Your task to perform on an android device: change notification settings in the gmail app Image 0: 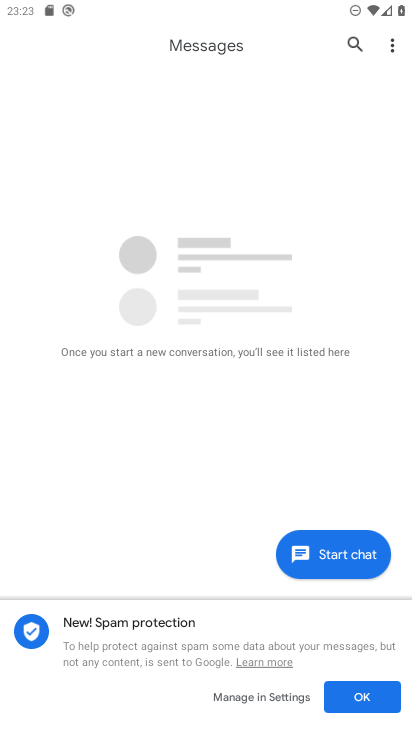
Step 0: press home button
Your task to perform on an android device: change notification settings in the gmail app Image 1: 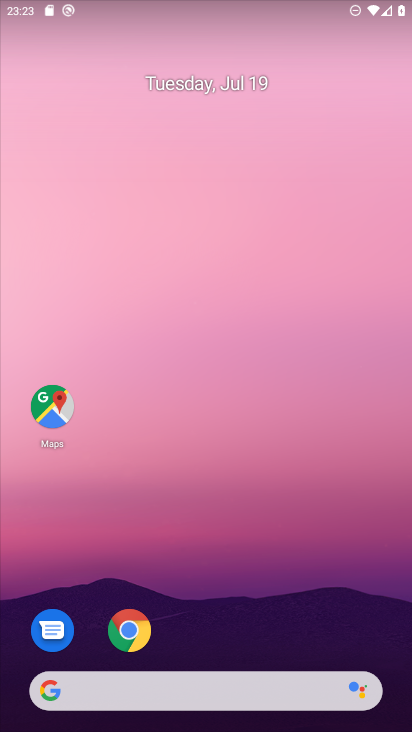
Step 1: drag from (203, 633) to (203, 213)
Your task to perform on an android device: change notification settings in the gmail app Image 2: 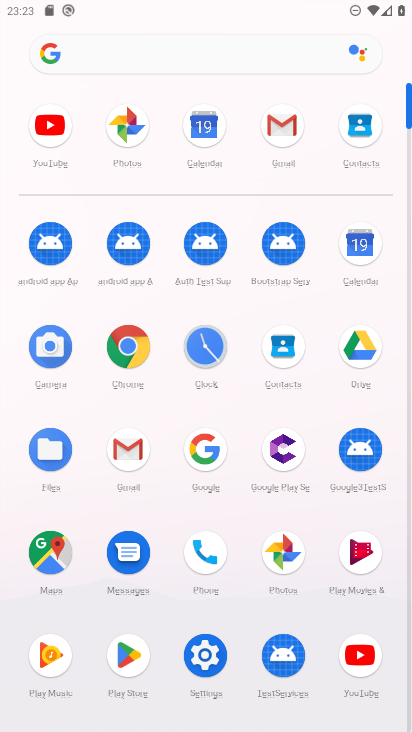
Step 2: click (270, 135)
Your task to perform on an android device: change notification settings in the gmail app Image 3: 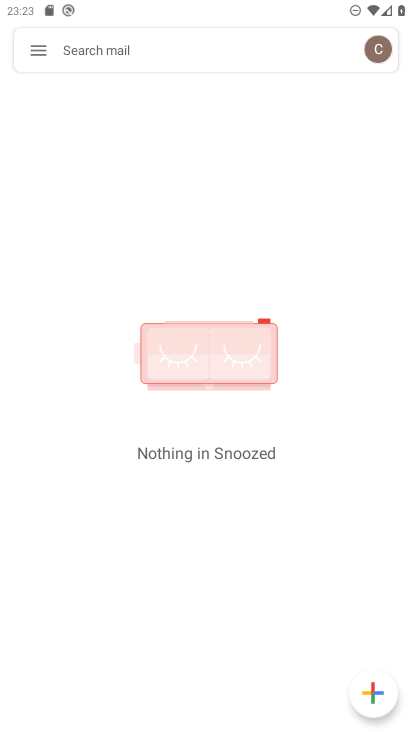
Step 3: click (45, 54)
Your task to perform on an android device: change notification settings in the gmail app Image 4: 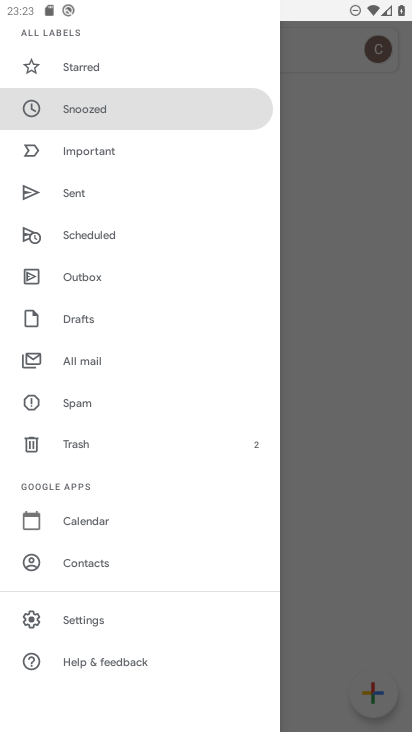
Step 4: click (113, 614)
Your task to perform on an android device: change notification settings in the gmail app Image 5: 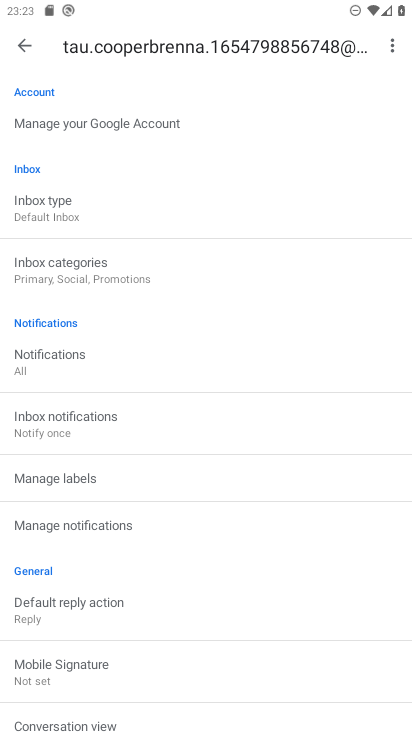
Step 5: click (133, 518)
Your task to perform on an android device: change notification settings in the gmail app Image 6: 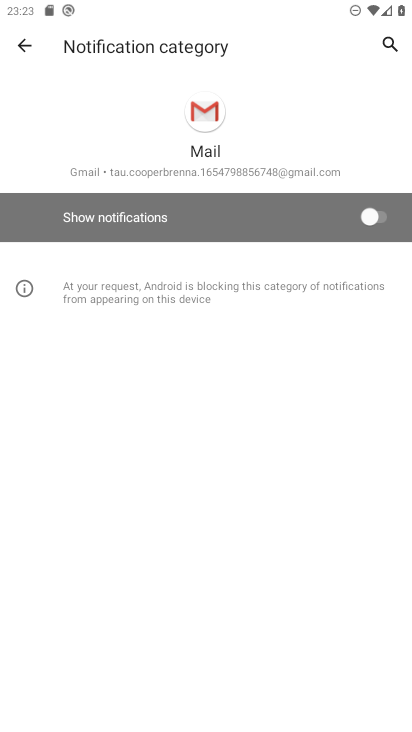
Step 6: click (387, 215)
Your task to perform on an android device: change notification settings in the gmail app Image 7: 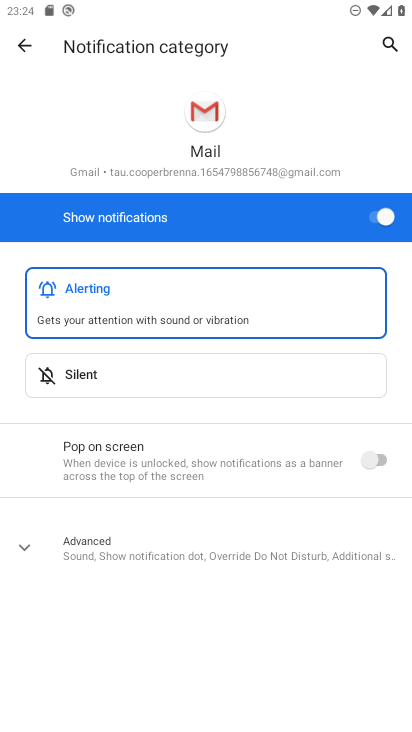
Step 7: task complete